Your task to perform on an android device: uninstall "Clock" Image 0: 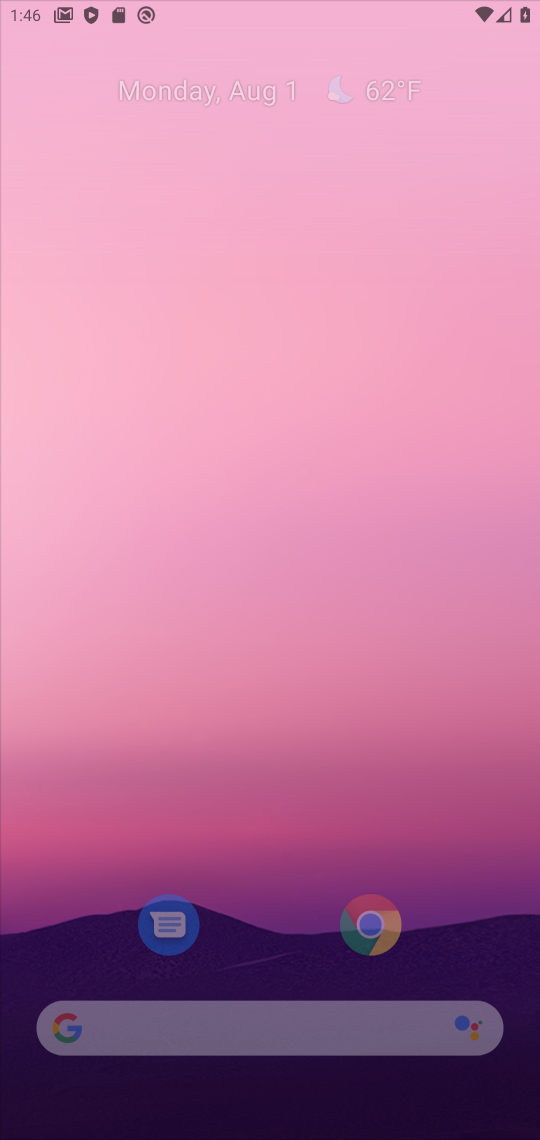
Step 0: press home button
Your task to perform on an android device: uninstall "Clock" Image 1: 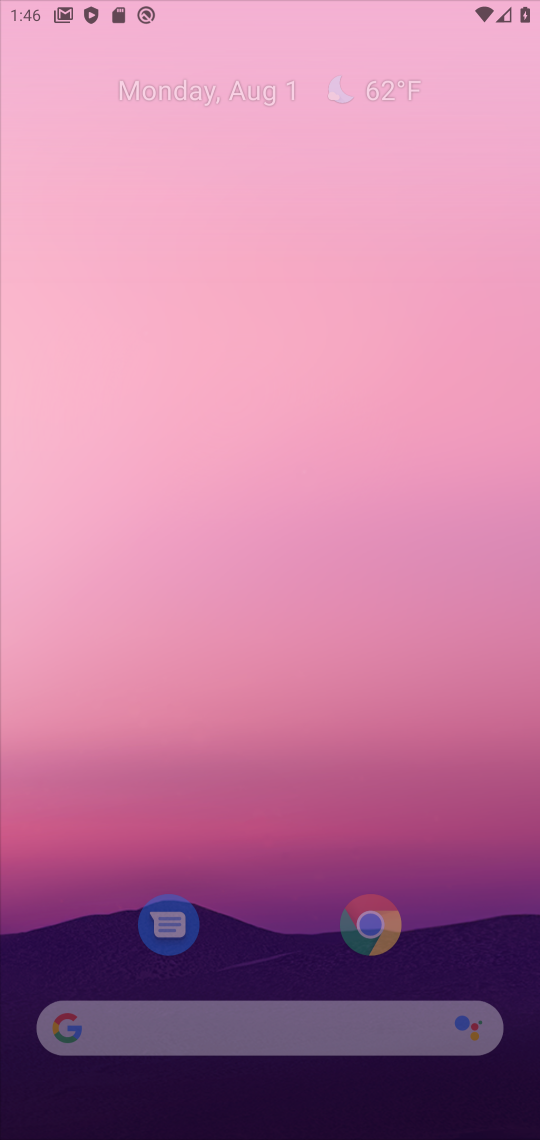
Step 1: click (238, 17)
Your task to perform on an android device: uninstall "Clock" Image 2: 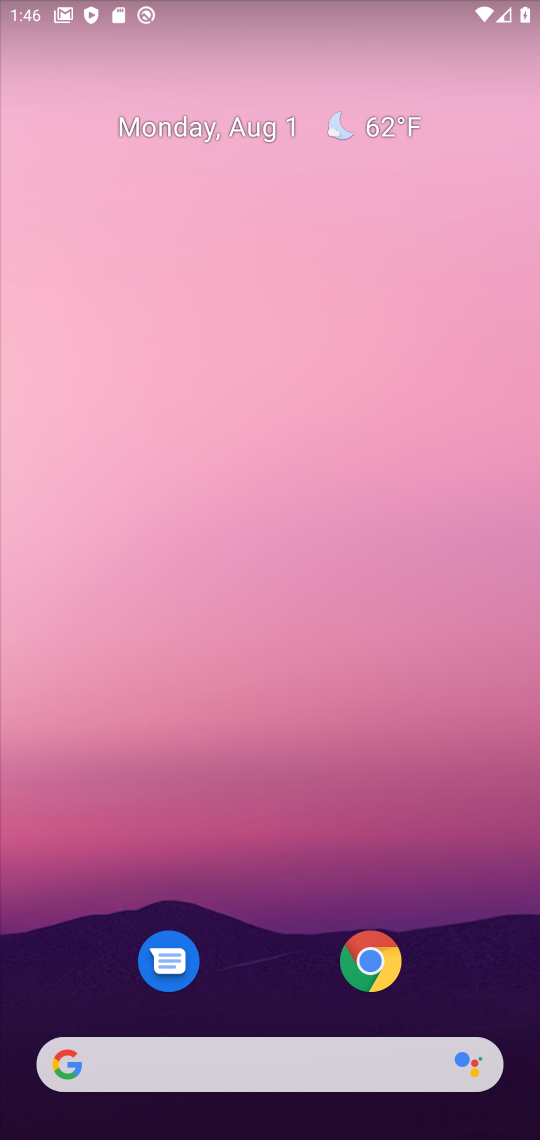
Step 2: press home button
Your task to perform on an android device: uninstall "Clock" Image 3: 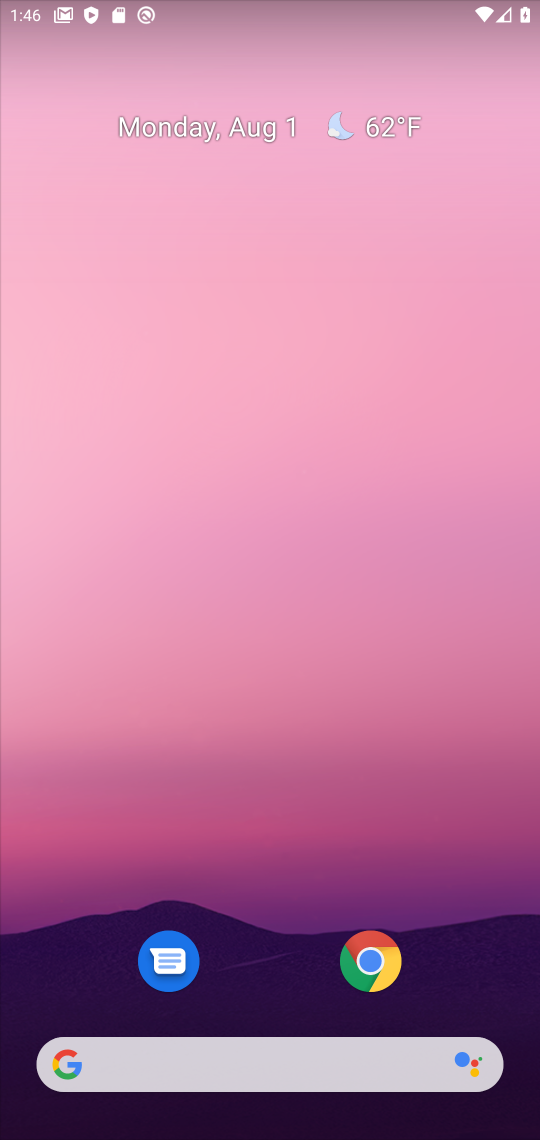
Step 3: press home button
Your task to perform on an android device: uninstall "Clock" Image 4: 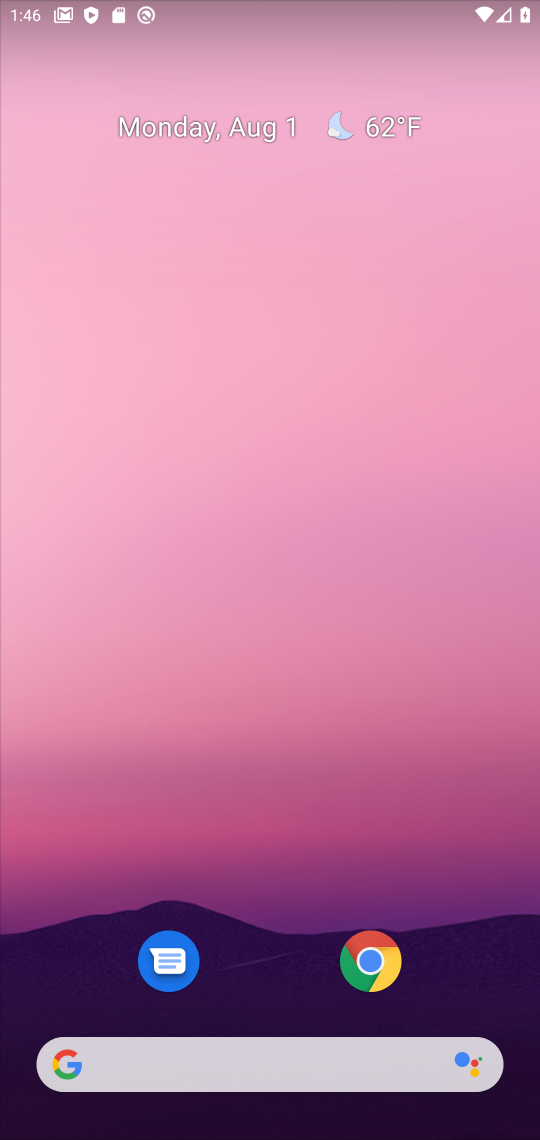
Step 4: drag from (255, 945) to (385, 46)
Your task to perform on an android device: uninstall "Clock" Image 5: 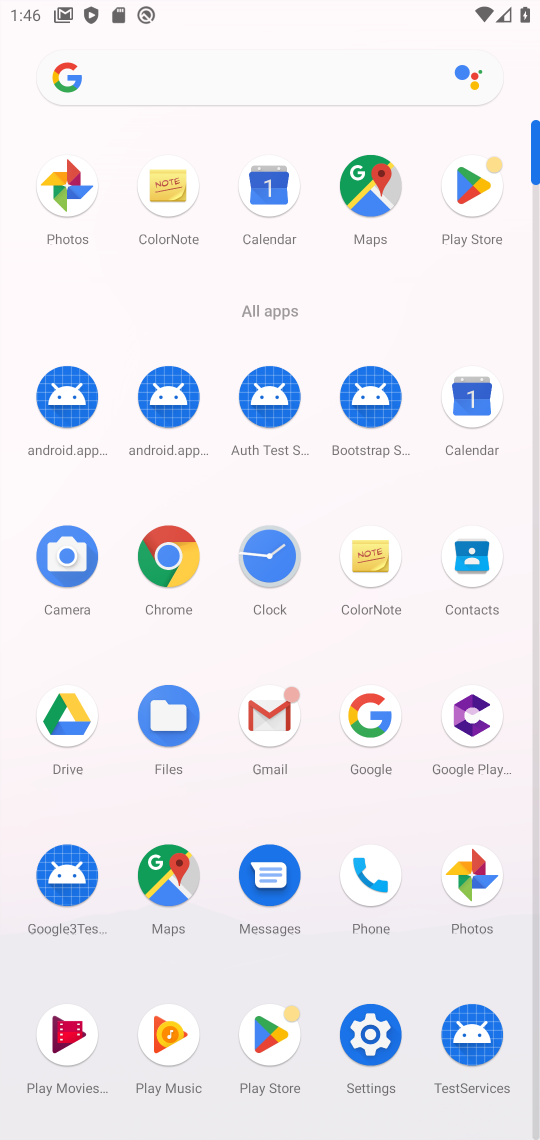
Step 5: click (464, 173)
Your task to perform on an android device: uninstall "Clock" Image 6: 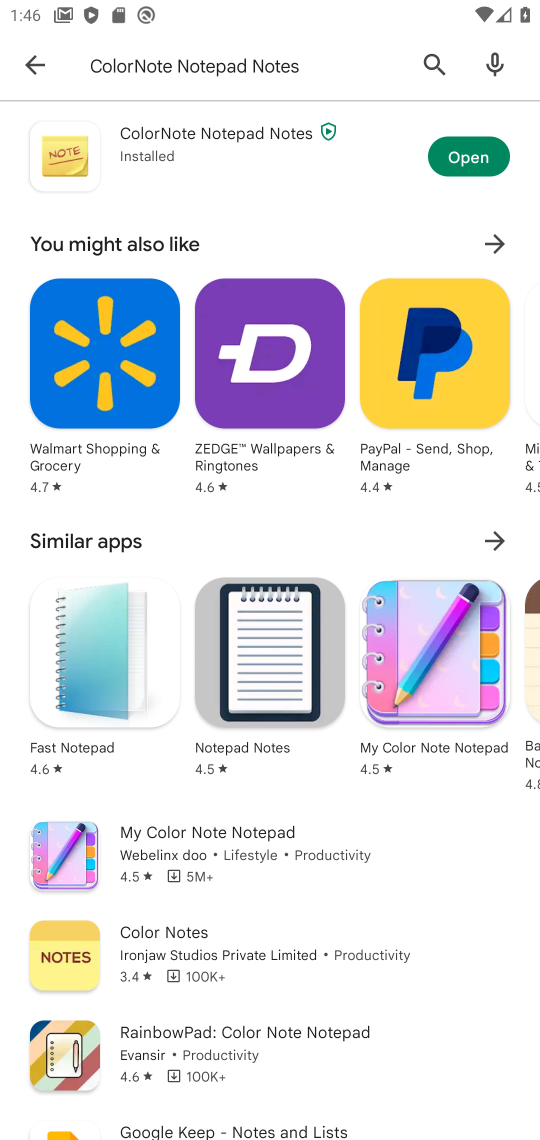
Step 6: click (345, 63)
Your task to perform on an android device: uninstall "Clock" Image 7: 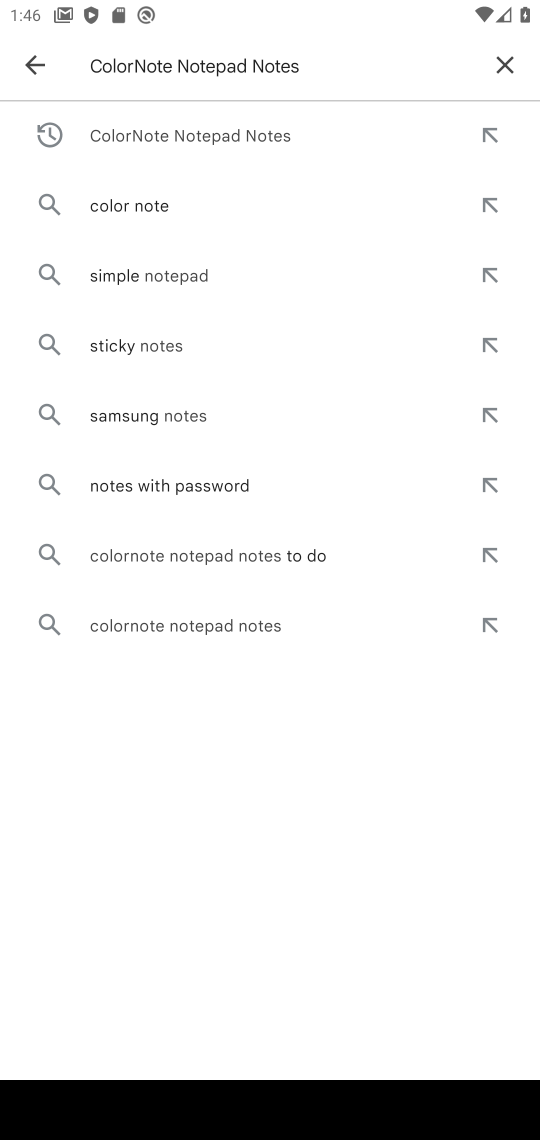
Step 7: click (506, 64)
Your task to perform on an android device: uninstall "Clock" Image 8: 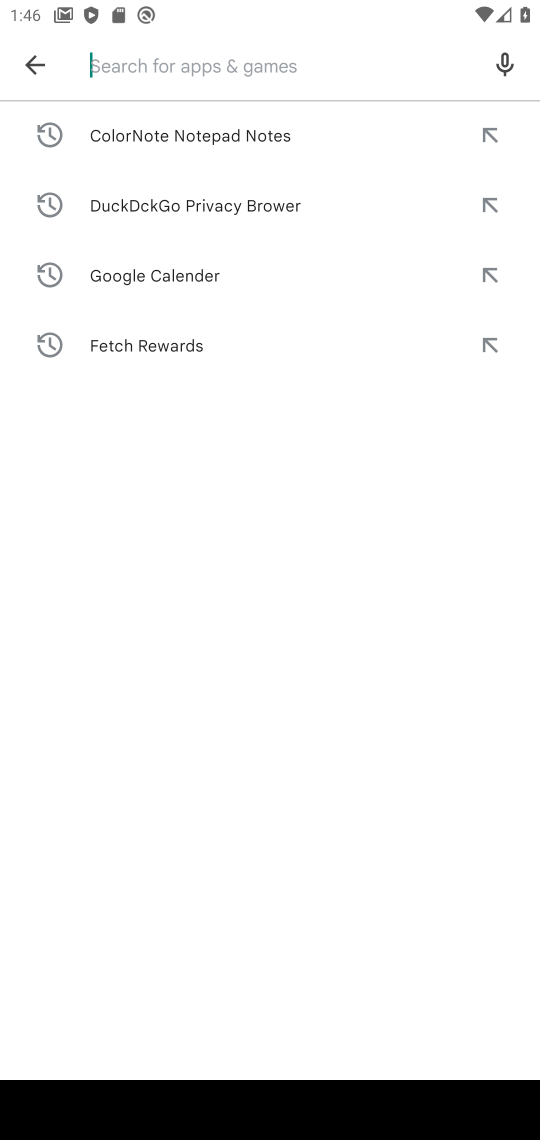
Step 8: type "Clock"
Your task to perform on an android device: uninstall "Clock" Image 9: 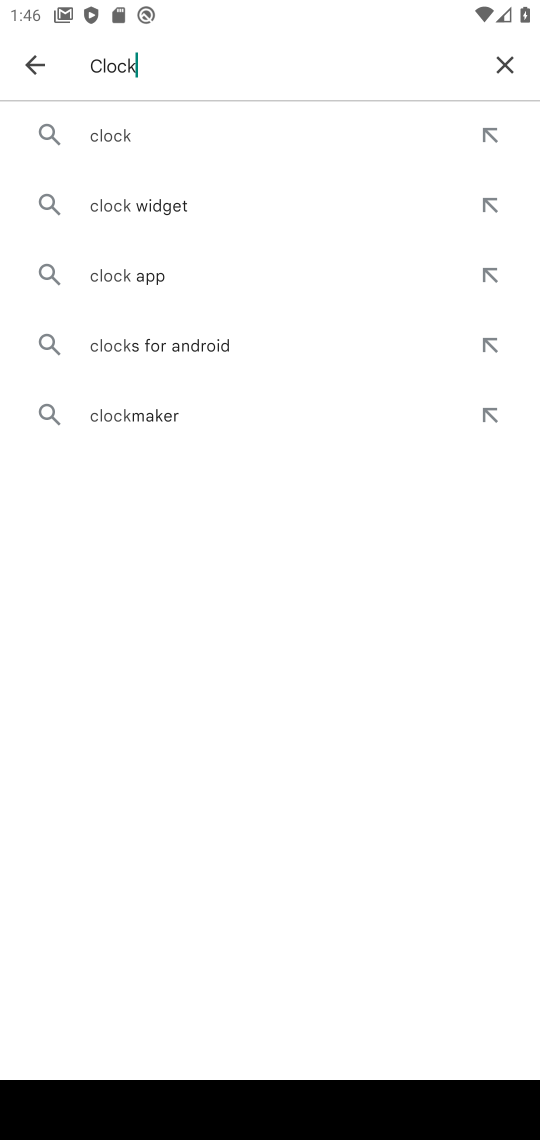
Step 9: press enter
Your task to perform on an android device: uninstall "Clock" Image 10: 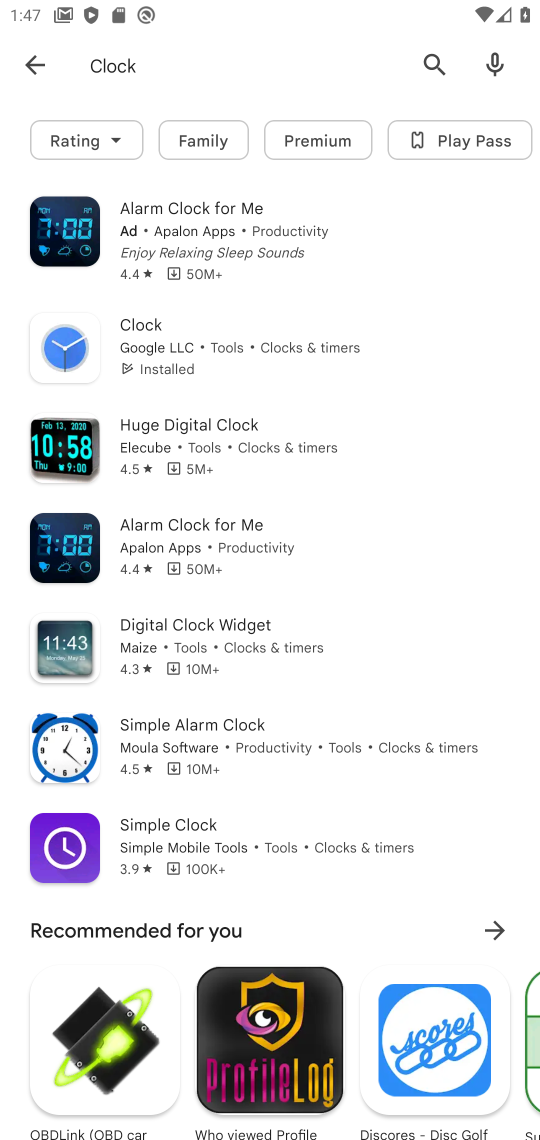
Step 10: click (278, 330)
Your task to perform on an android device: uninstall "Clock" Image 11: 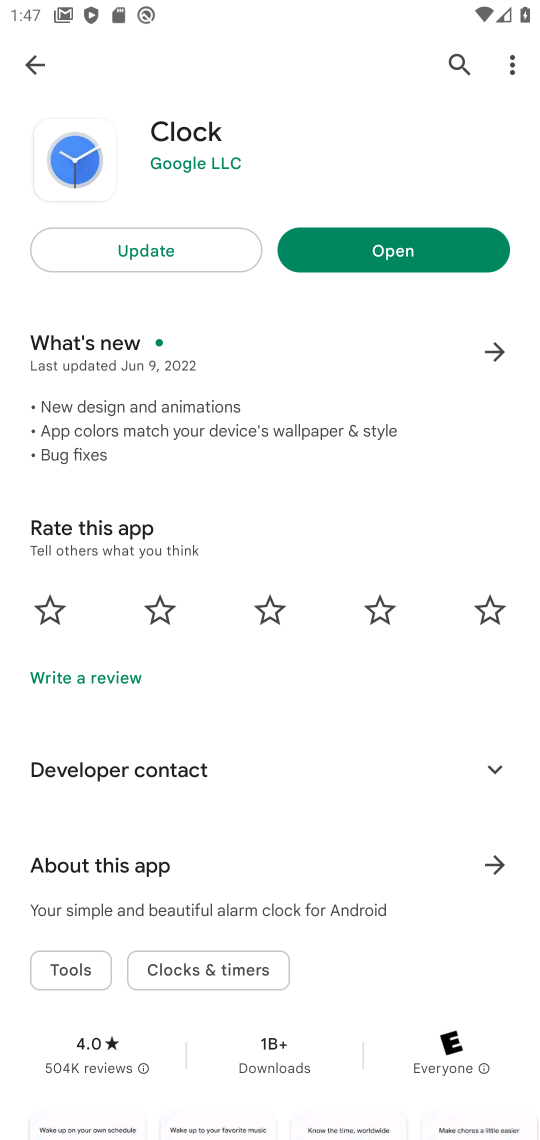
Step 11: task complete